Your task to perform on an android device: check the backup settings in the google photos Image 0: 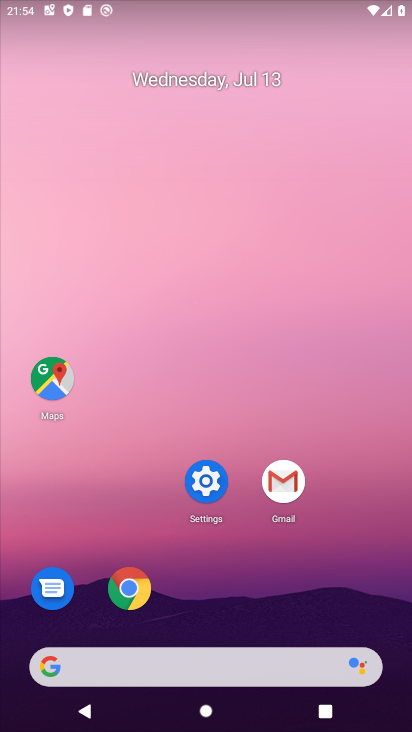
Step 0: drag from (392, 681) to (342, 164)
Your task to perform on an android device: check the backup settings in the google photos Image 1: 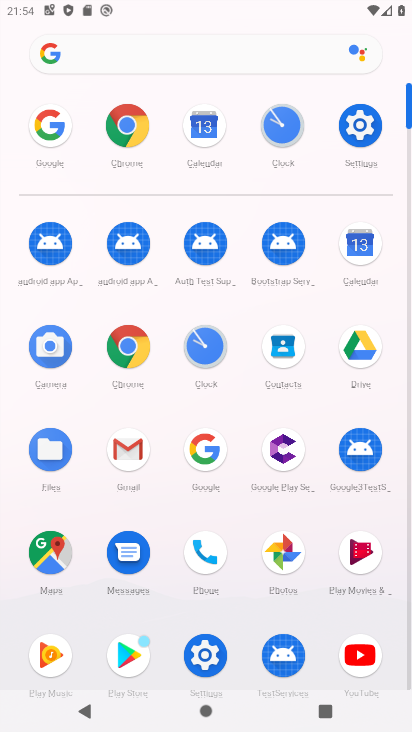
Step 1: click (288, 547)
Your task to perform on an android device: check the backup settings in the google photos Image 2: 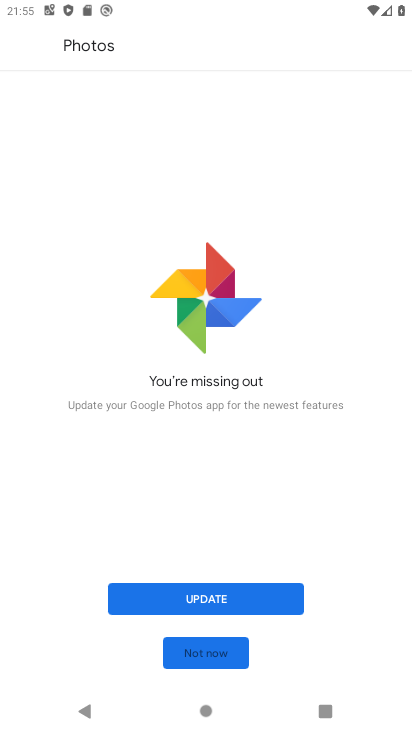
Step 2: click (224, 598)
Your task to perform on an android device: check the backup settings in the google photos Image 3: 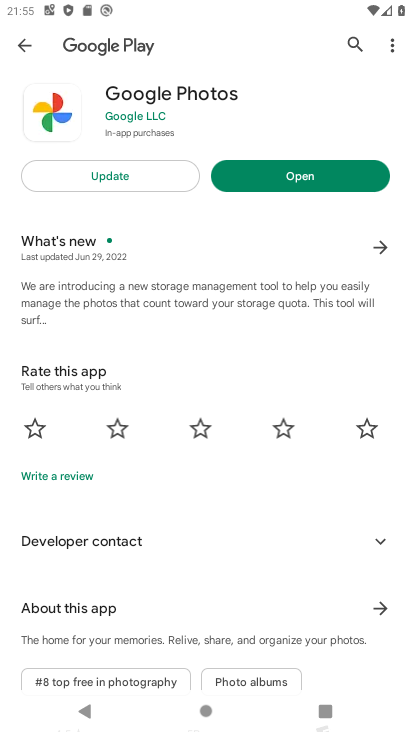
Step 3: click (280, 179)
Your task to perform on an android device: check the backup settings in the google photos Image 4: 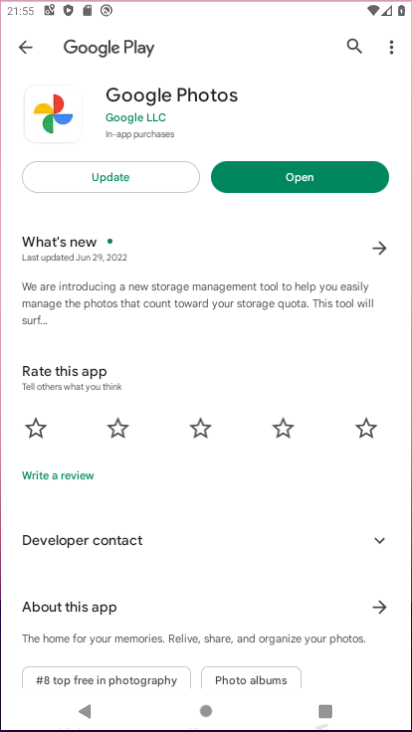
Step 4: click (117, 179)
Your task to perform on an android device: check the backup settings in the google photos Image 5: 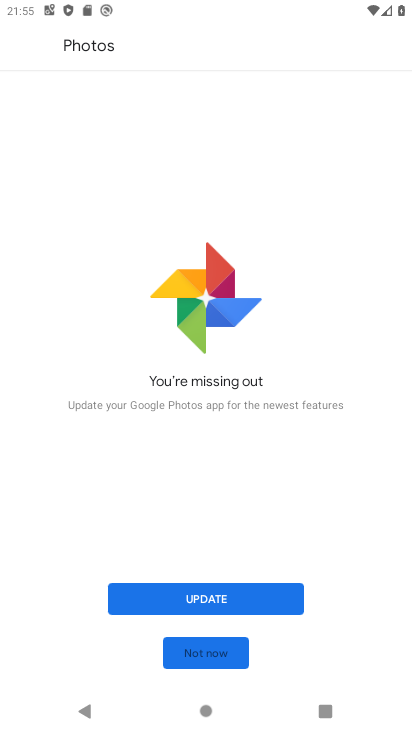
Step 5: click (198, 601)
Your task to perform on an android device: check the backup settings in the google photos Image 6: 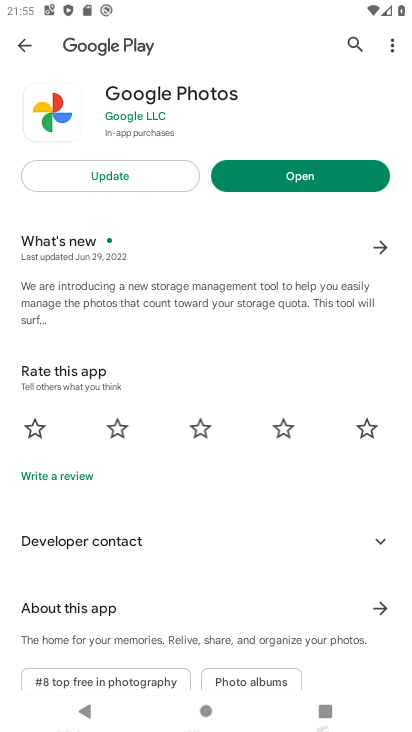
Step 6: click (133, 172)
Your task to perform on an android device: check the backup settings in the google photos Image 7: 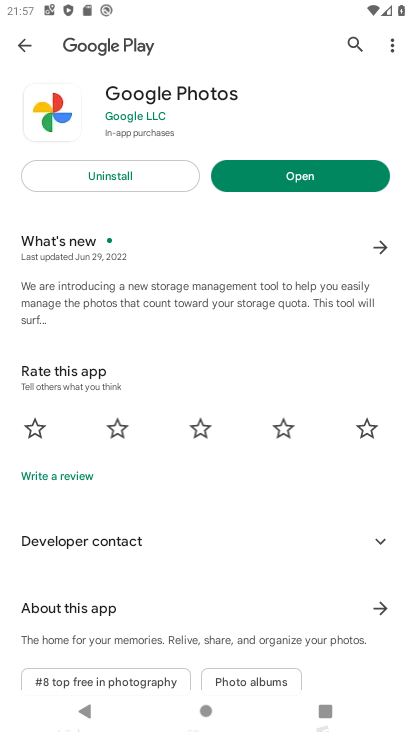
Step 7: click (263, 179)
Your task to perform on an android device: check the backup settings in the google photos Image 8: 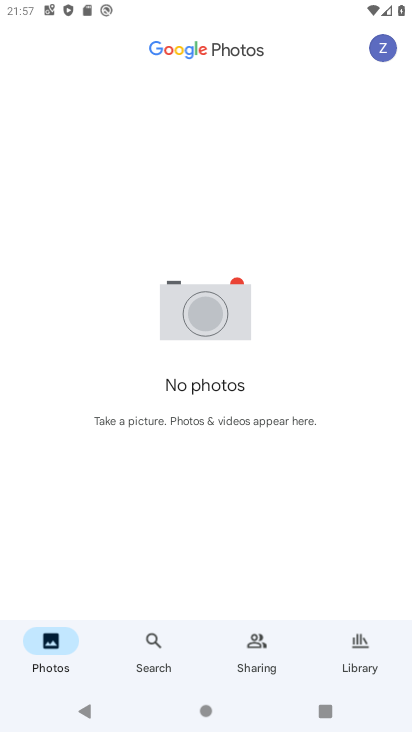
Step 8: task complete